Your task to perform on an android device: Go to Reddit.com Image 0: 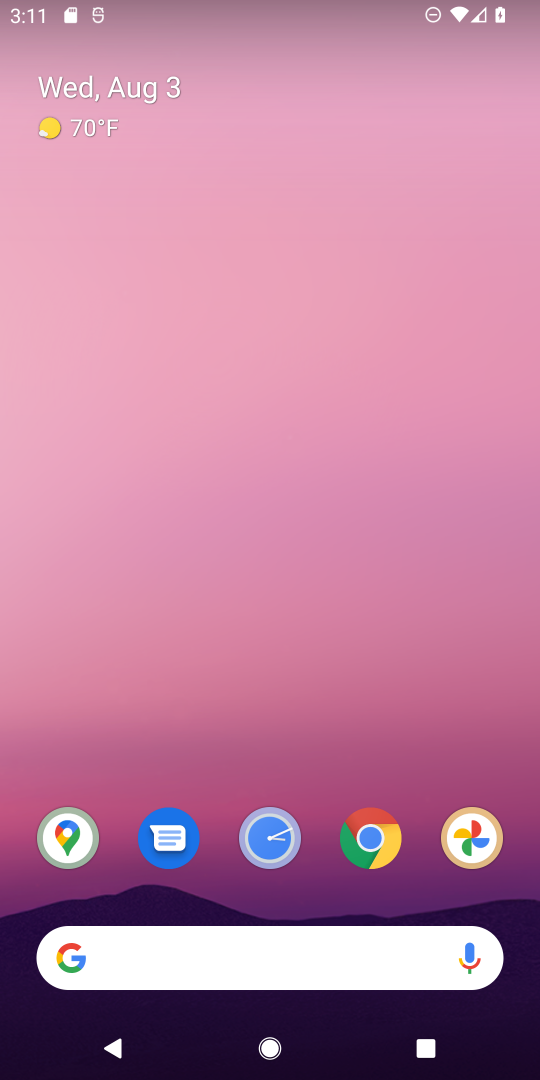
Step 0: click (381, 833)
Your task to perform on an android device: Go to Reddit.com Image 1: 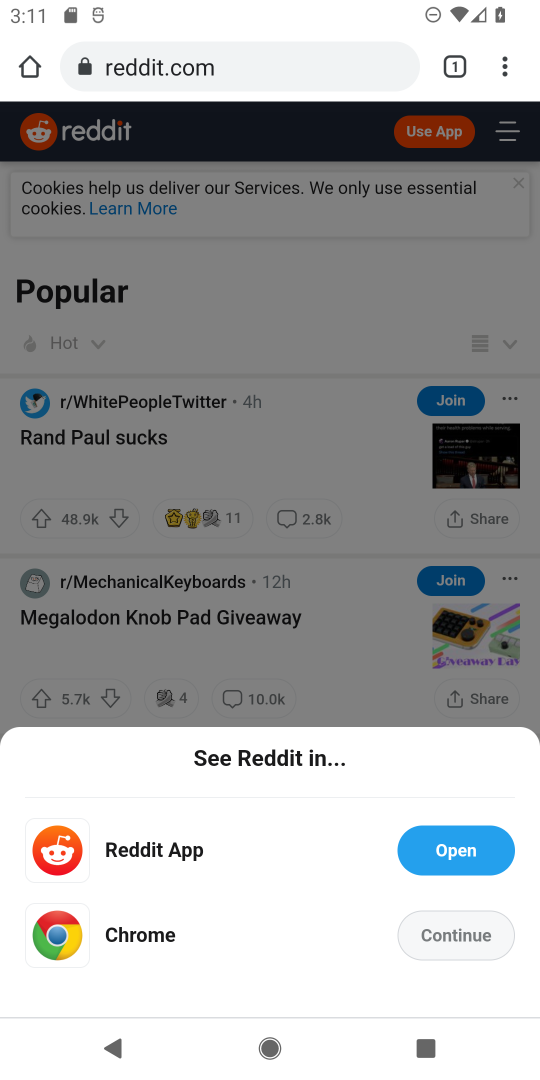
Step 1: task complete